Your task to perform on an android device: open app "Yahoo Mail" Image 0: 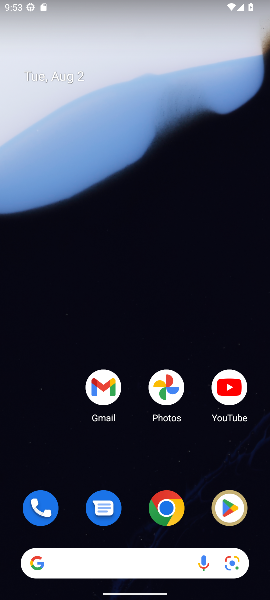
Step 0: click (227, 516)
Your task to perform on an android device: open app "Yahoo Mail" Image 1: 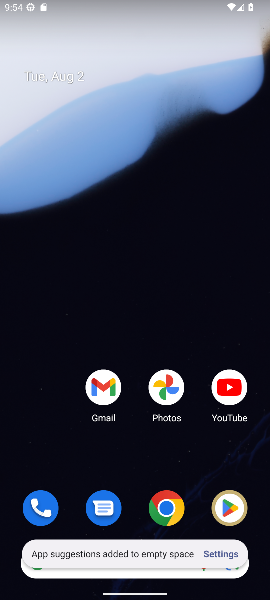
Step 1: click (232, 504)
Your task to perform on an android device: open app "Yahoo Mail" Image 2: 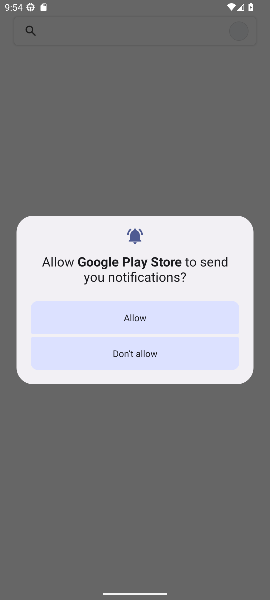
Step 2: click (145, 347)
Your task to perform on an android device: open app "Yahoo Mail" Image 3: 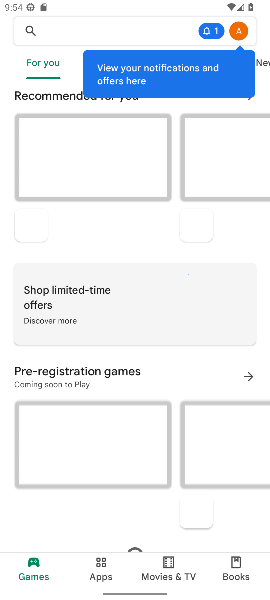
Step 3: click (84, 36)
Your task to perform on an android device: open app "Yahoo Mail" Image 4: 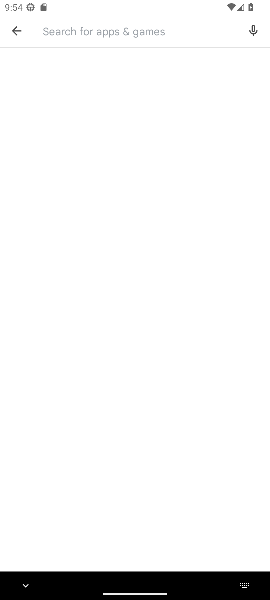
Step 4: type "Yahoo Mail"
Your task to perform on an android device: open app "Yahoo Mail" Image 5: 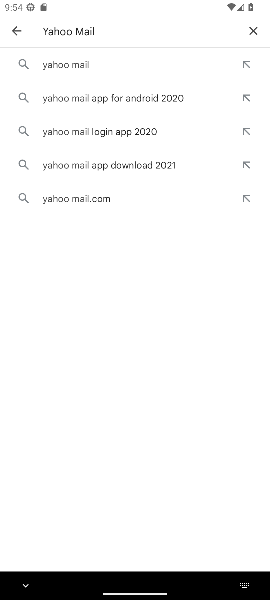
Step 5: click (81, 73)
Your task to perform on an android device: open app "Yahoo Mail" Image 6: 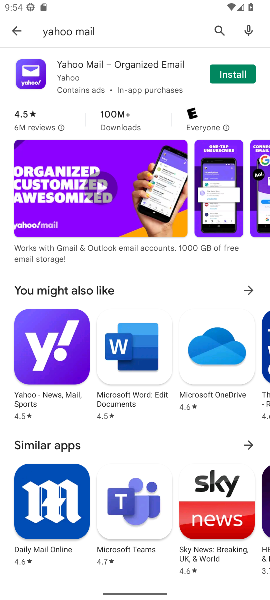
Step 6: task complete